Your task to perform on an android device: open app "Gmail" (install if not already installed) Image 0: 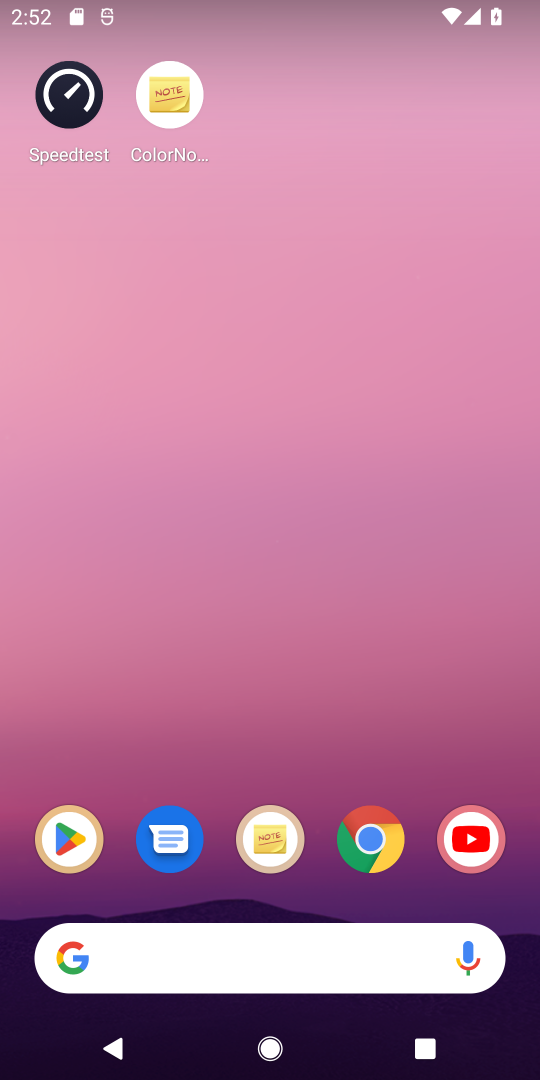
Step 0: drag from (229, 886) to (219, 197)
Your task to perform on an android device: open app "Gmail" (install if not already installed) Image 1: 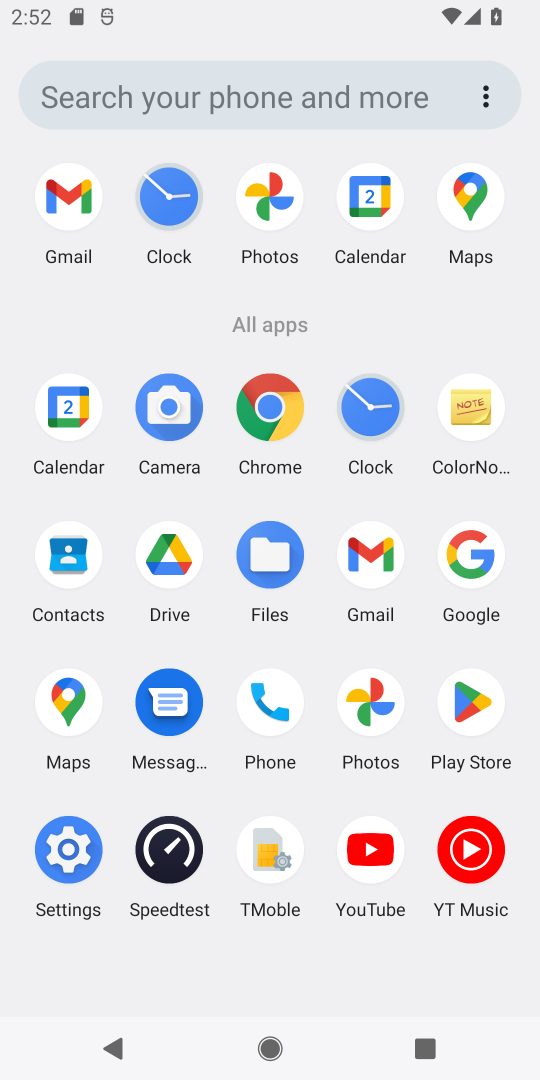
Step 1: click (53, 246)
Your task to perform on an android device: open app "Gmail" (install if not already installed) Image 2: 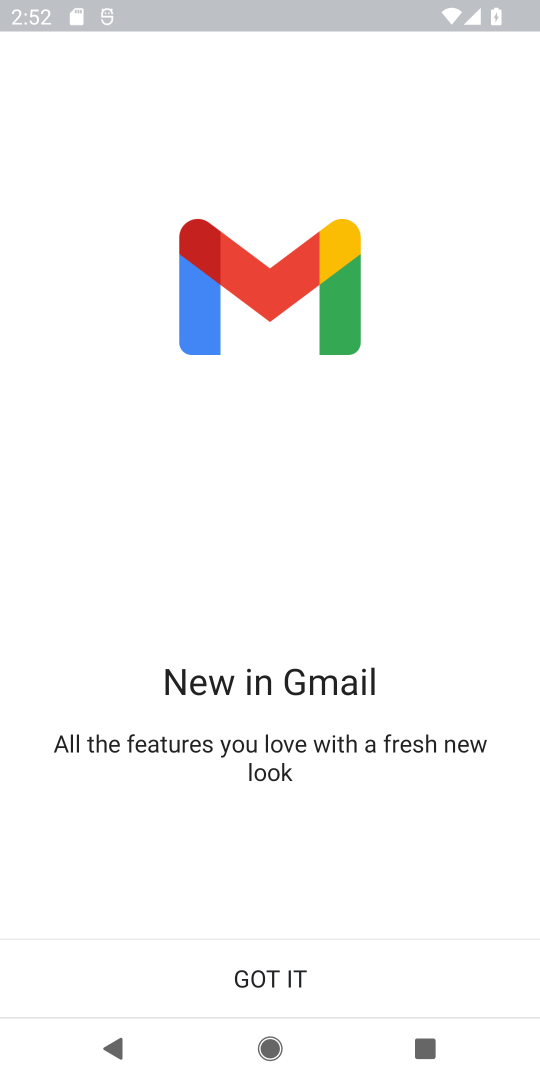
Step 2: task complete